Your task to perform on an android device: Open Yahoo.com Image 0: 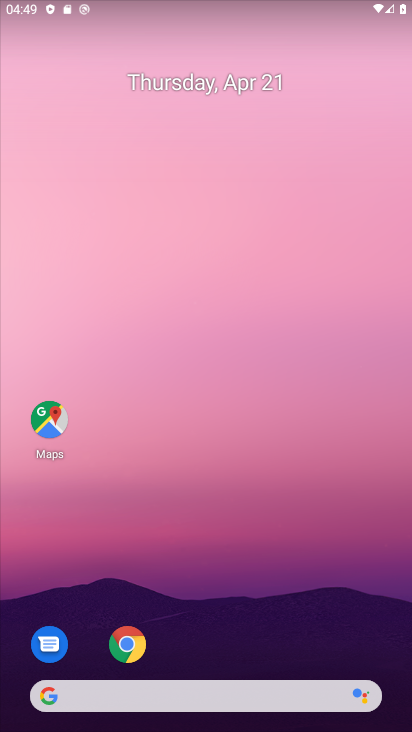
Step 0: drag from (281, 541) to (309, 182)
Your task to perform on an android device: Open Yahoo.com Image 1: 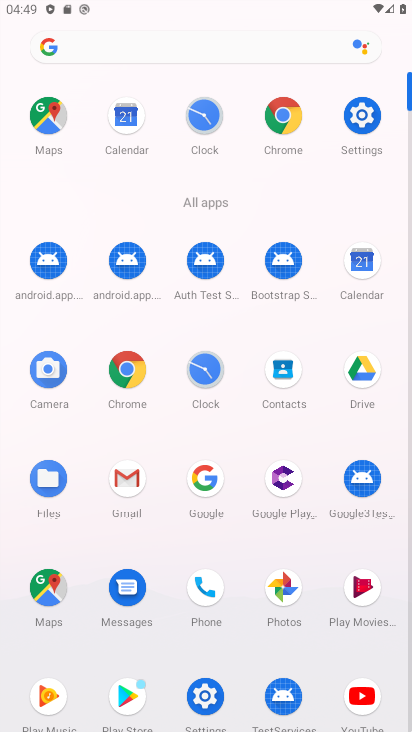
Step 1: click (136, 358)
Your task to perform on an android device: Open Yahoo.com Image 2: 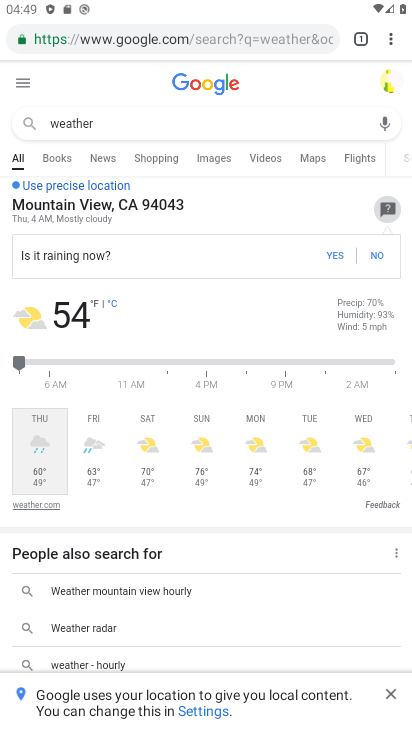
Step 2: click (229, 32)
Your task to perform on an android device: Open Yahoo.com Image 3: 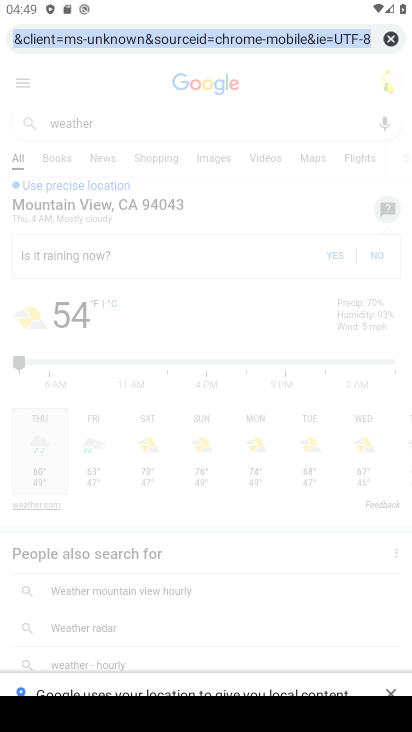
Step 3: type "yahoo.com"
Your task to perform on an android device: Open Yahoo.com Image 4: 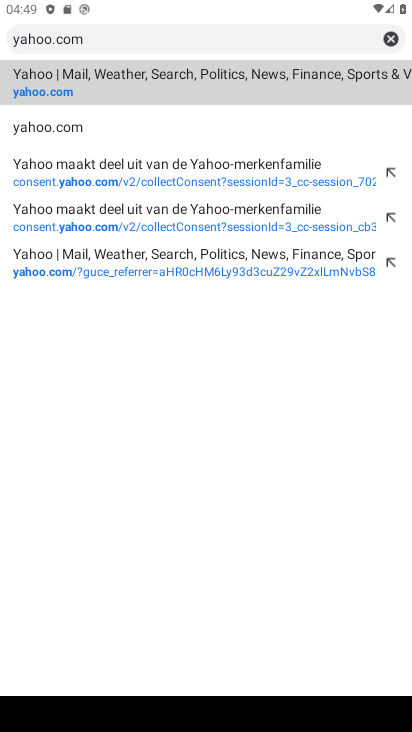
Step 4: click (56, 87)
Your task to perform on an android device: Open Yahoo.com Image 5: 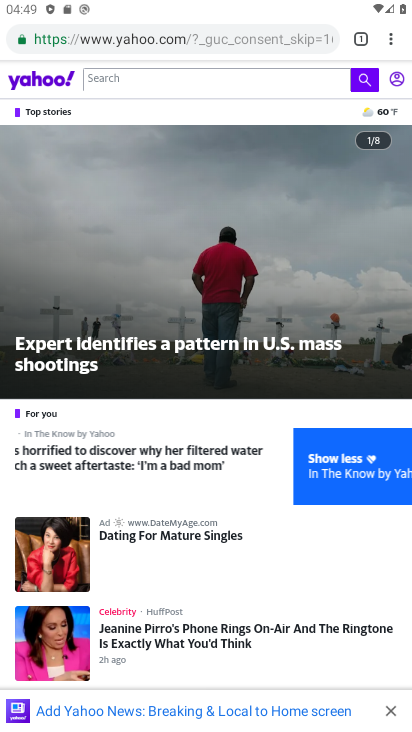
Step 5: task complete